Your task to perform on an android device: What's the weather? Image 0: 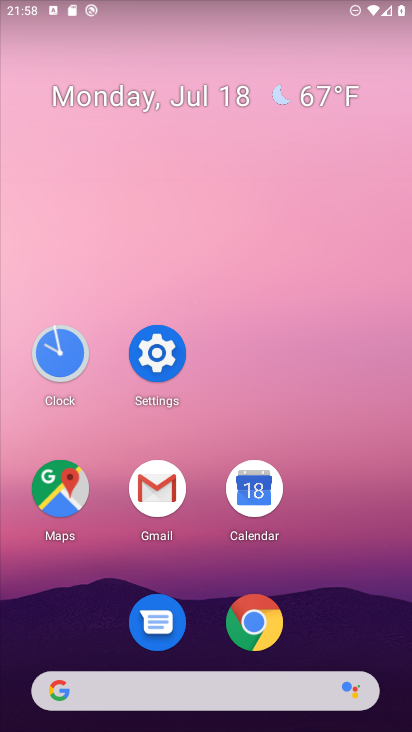
Step 0: click (314, 111)
Your task to perform on an android device: What's the weather? Image 1: 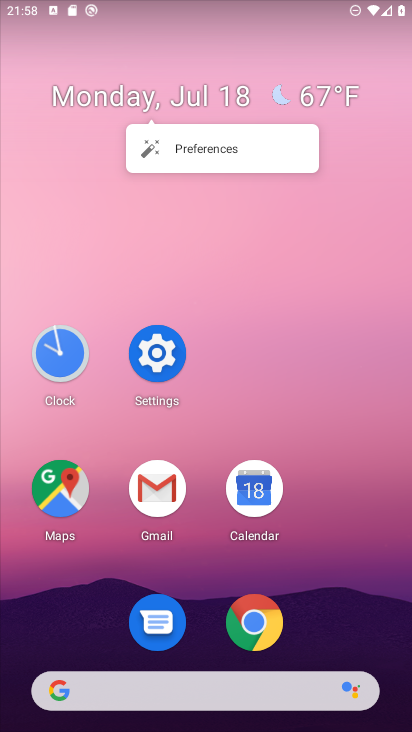
Step 1: click (314, 96)
Your task to perform on an android device: What's the weather? Image 2: 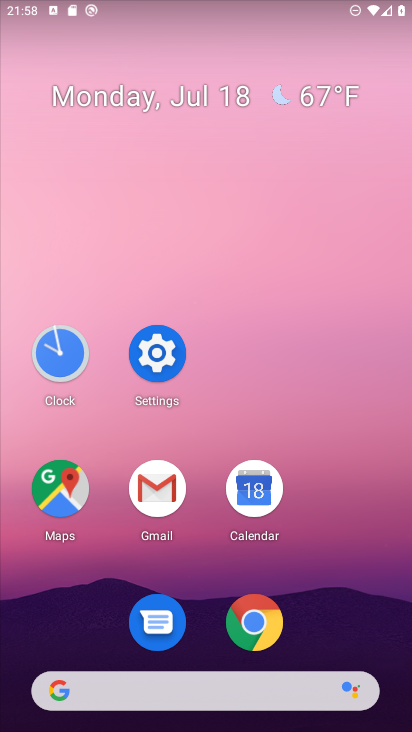
Step 2: click (334, 93)
Your task to perform on an android device: What's the weather? Image 3: 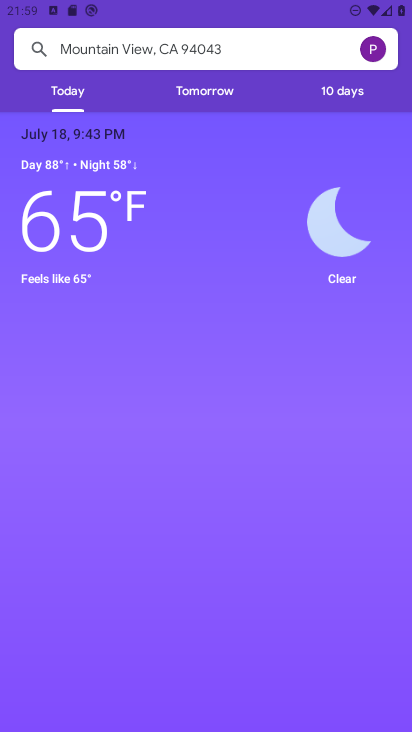
Step 3: task complete